Your task to perform on an android device: Do I have any events today? Image 0: 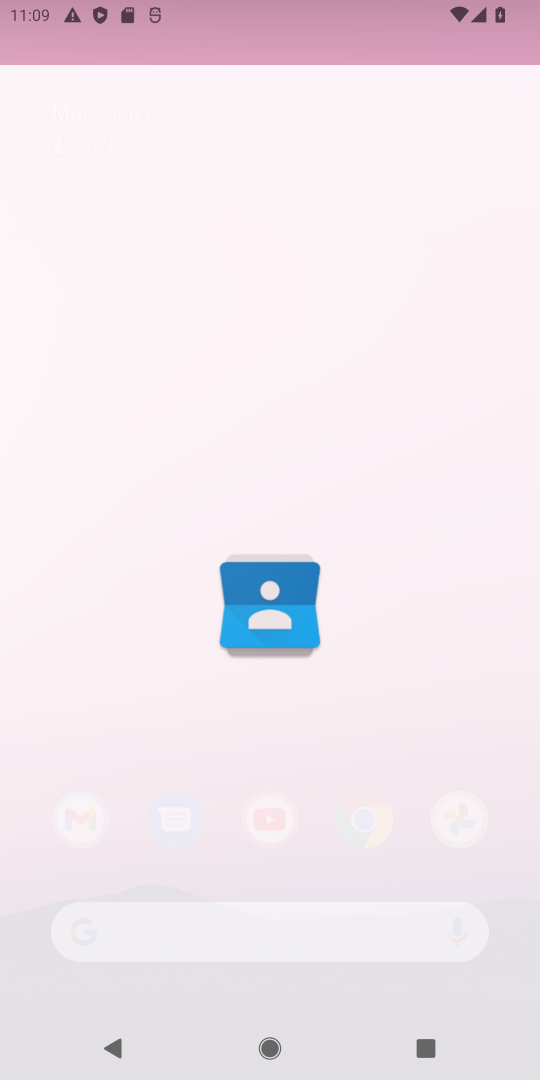
Step 0: press home button
Your task to perform on an android device: Do I have any events today? Image 1: 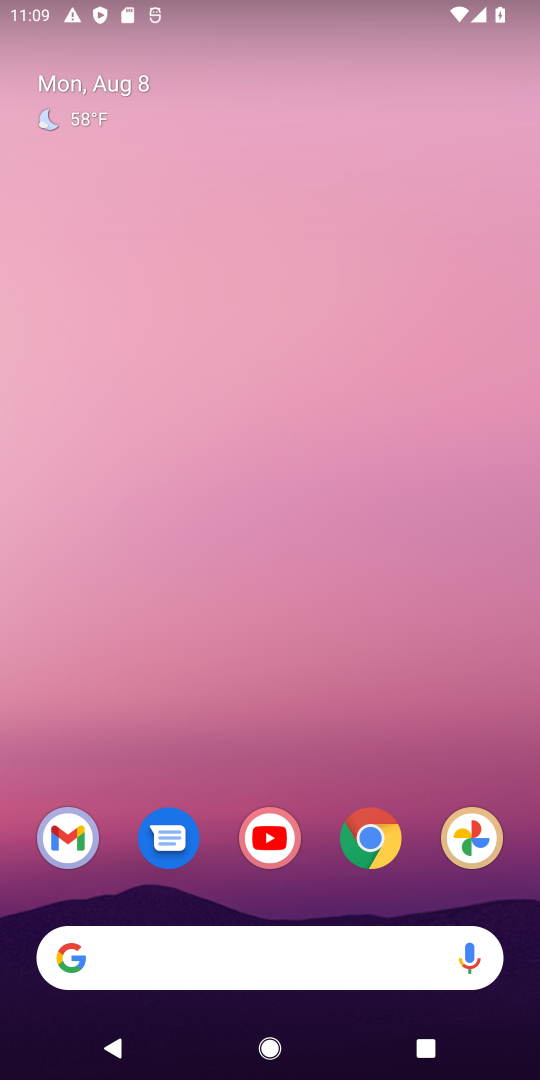
Step 1: drag from (319, 897) to (253, 130)
Your task to perform on an android device: Do I have any events today? Image 2: 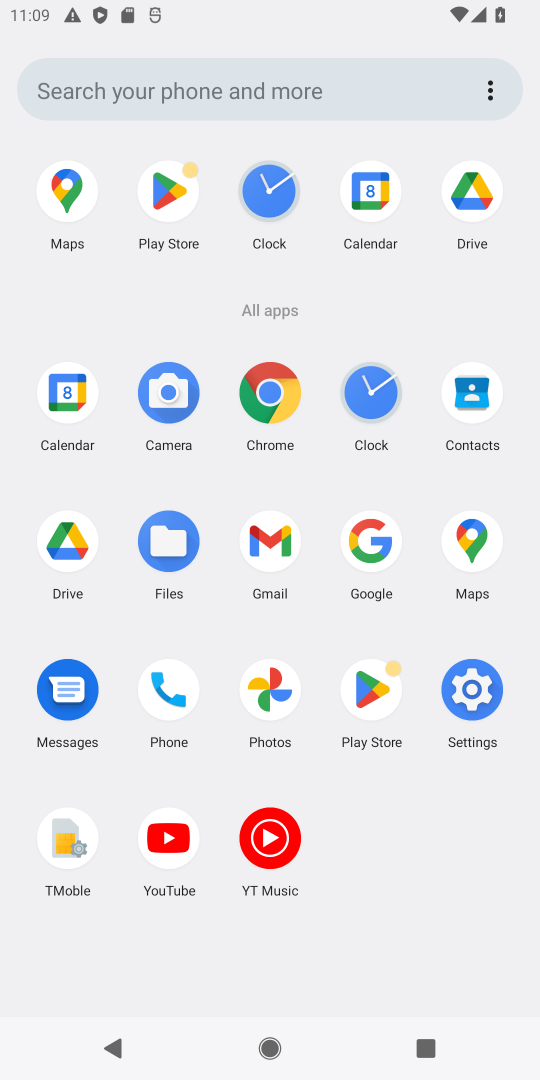
Step 2: click (371, 192)
Your task to perform on an android device: Do I have any events today? Image 3: 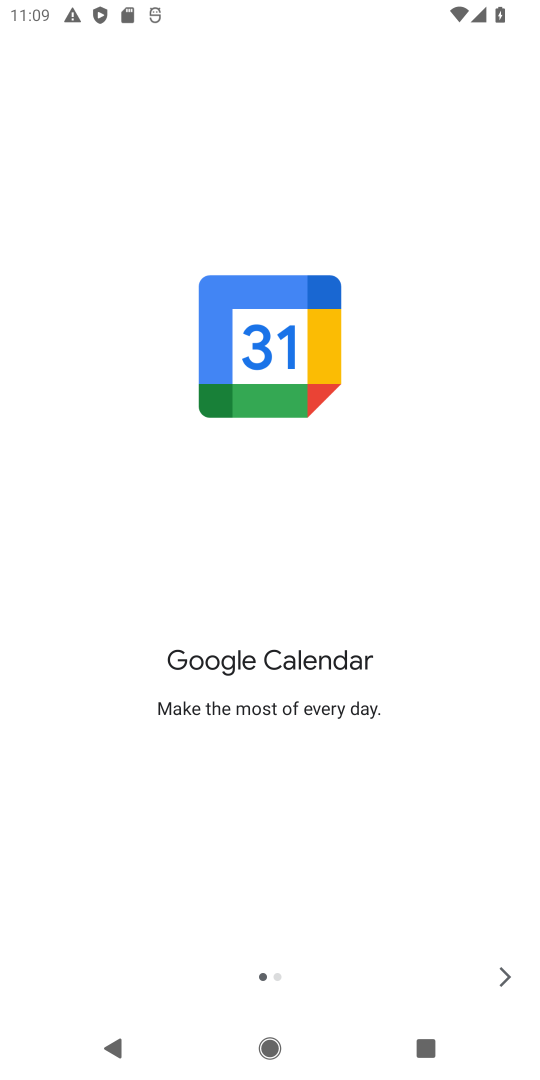
Step 3: click (508, 972)
Your task to perform on an android device: Do I have any events today? Image 4: 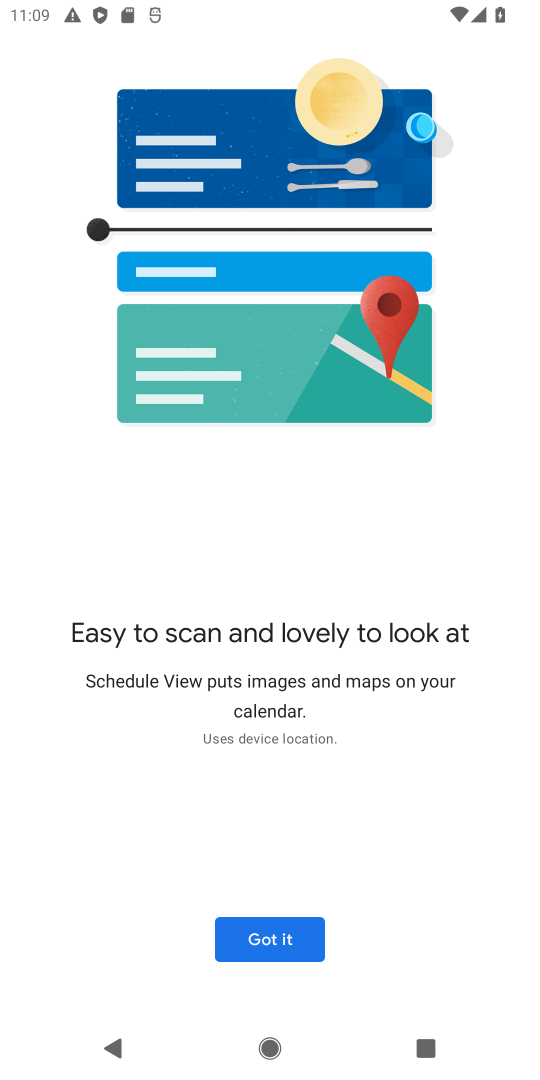
Step 4: click (233, 941)
Your task to perform on an android device: Do I have any events today? Image 5: 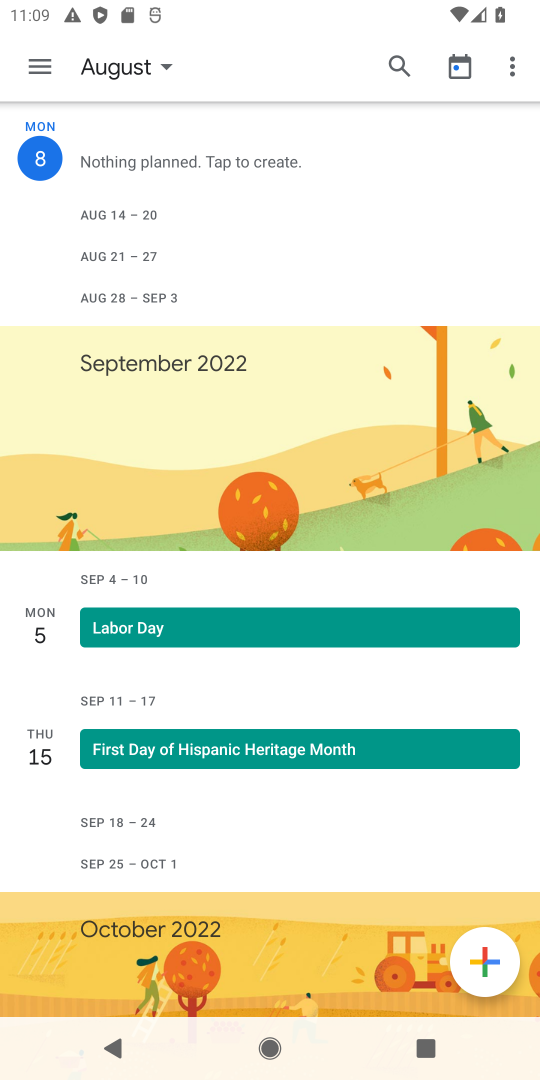
Step 5: click (148, 70)
Your task to perform on an android device: Do I have any events today? Image 6: 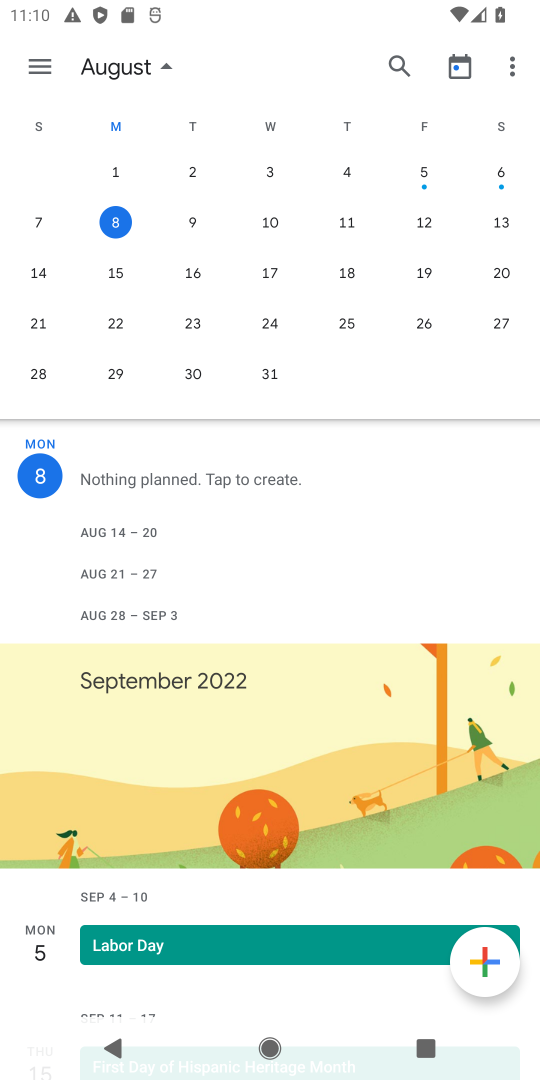
Step 6: click (110, 226)
Your task to perform on an android device: Do I have any events today? Image 7: 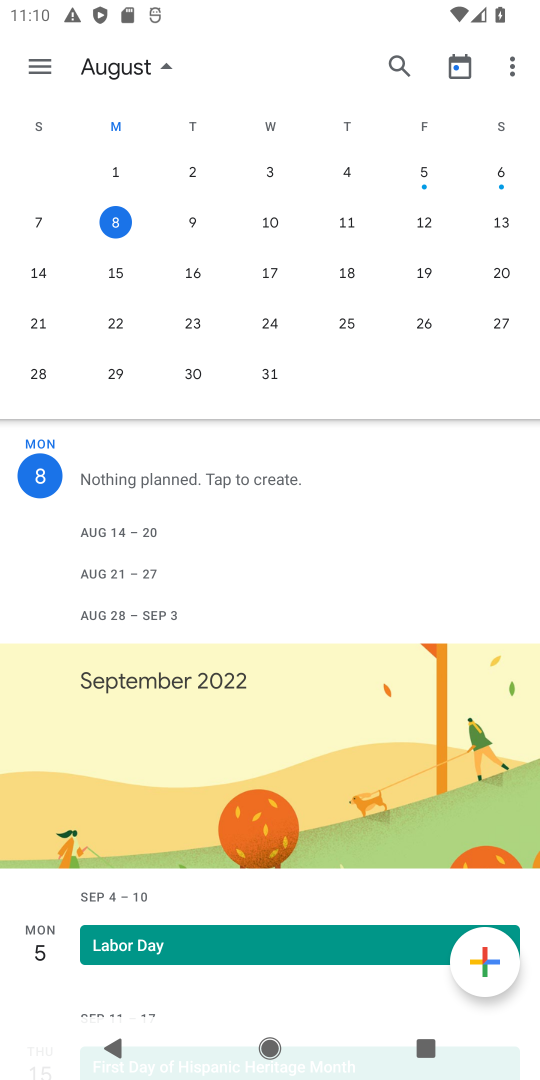
Step 7: task complete